Your task to perform on an android device: What's the weather today? Image 0: 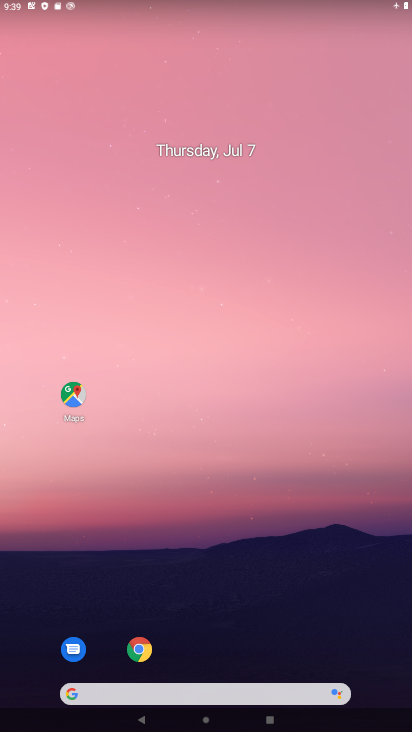
Step 0: drag from (229, 728) to (235, 112)
Your task to perform on an android device: What's the weather today? Image 1: 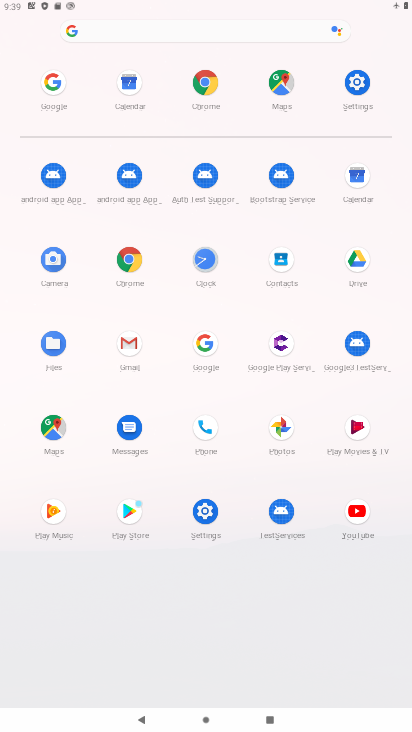
Step 1: click (206, 346)
Your task to perform on an android device: What's the weather today? Image 2: 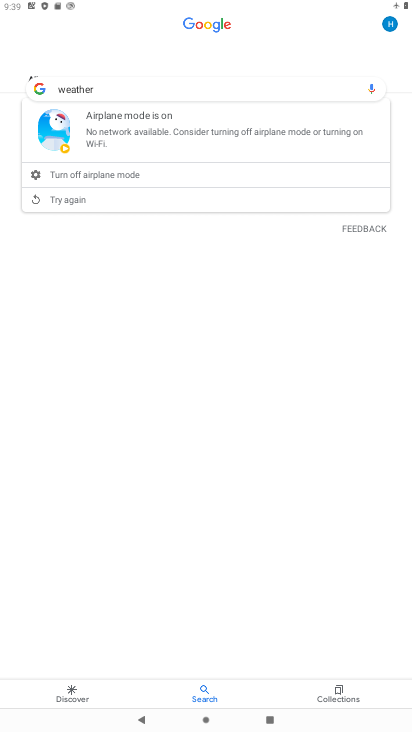
Step 2: task complete